Your task to perform on an android device: see tabs open on other devices in the chrome app Image 0: 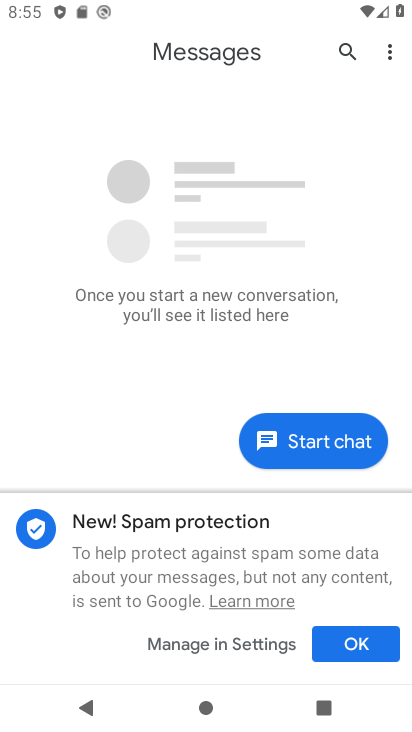
Step 0: press home button
Your task to perform on an android device: see tabs open on other devices in the chrome app Image 1: 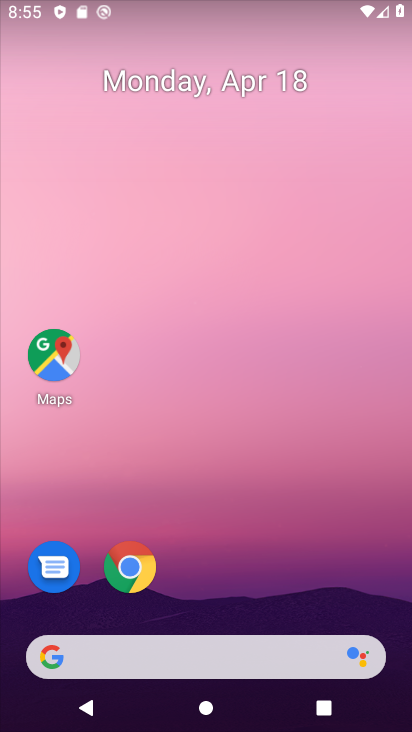
Step 1: click (124, 585)
Your task to perform on an android device: see tabs open on other devices in the chrome app Image 2: 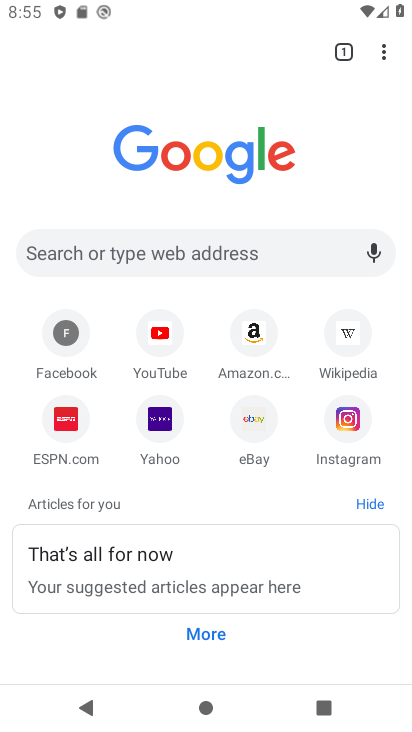
Step 2: click (384, 47)
Your task to perform on an android device: see tabs open on other devices in the chrome app Image 3: 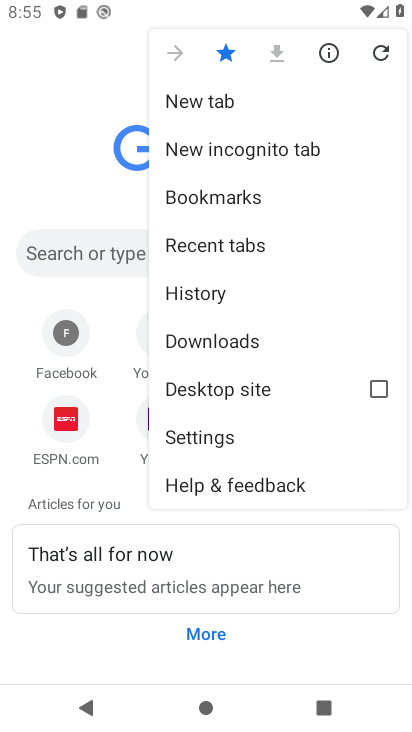
Step 3: click (86, 168)
Your task to perform on an android device: see tabs open on other devices in the chrome app Image 4: 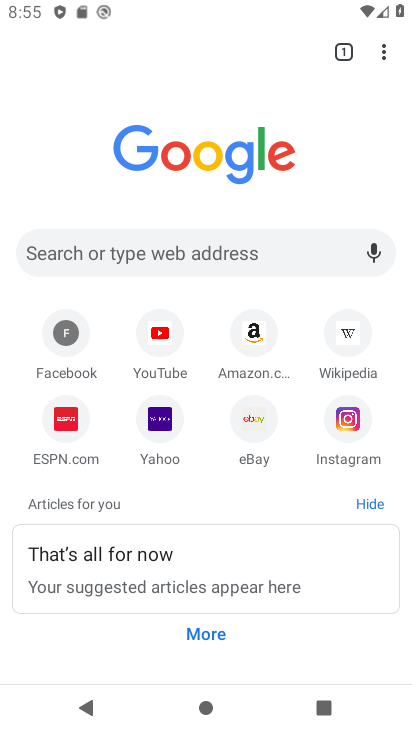
Step 4: click (178, 101)
Your task to perform on an android device: see tabs open on other devices in the chrome app Image 5: 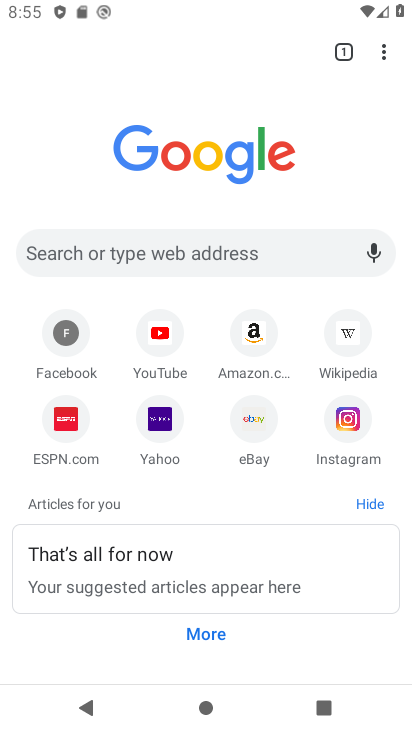
Step 5: task complete